Your task to perform on an android device: Check the news Image 0: 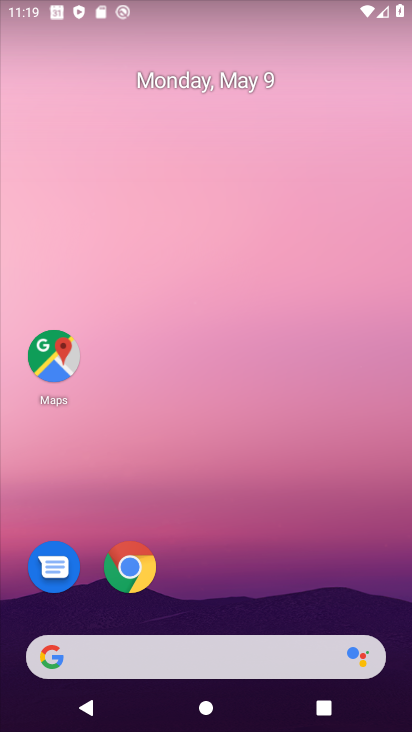
Step 0: drag from (341, 605) to (268, 111)
Your task to perform on an android device: Check the news Image 1: 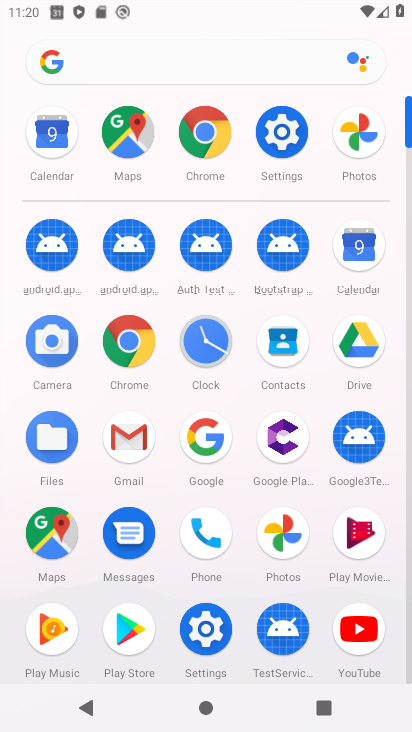
Step 1: click (130, 356)
Your task to perform on an android device: Check the news Image 2: 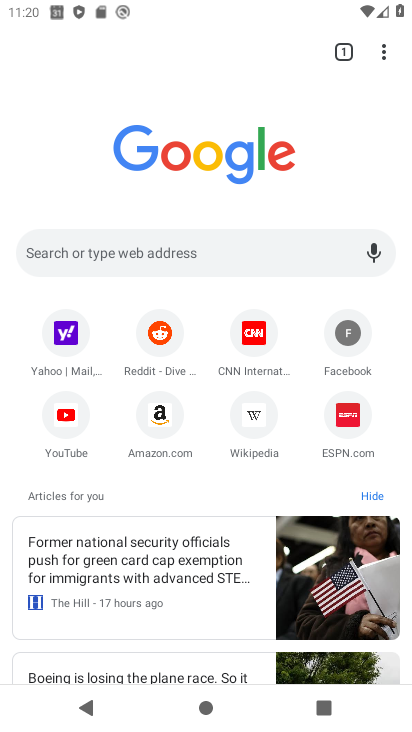
Step 2: click (146, 576)
Your task to perform on an android device: Check the news Image 3: 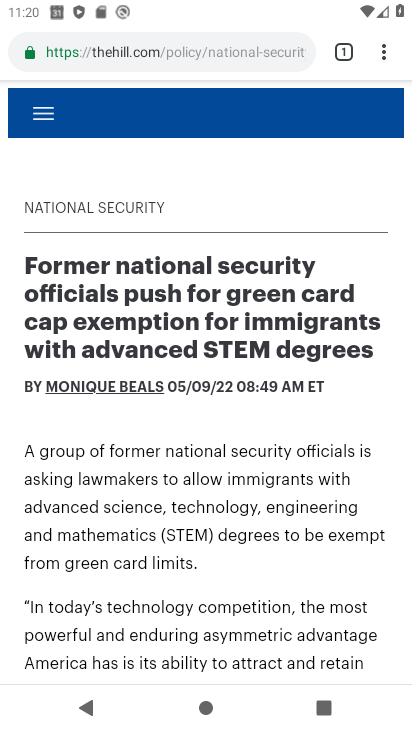
Step 3: task complete